Your task to perform on an android device: Open eBay Image 0: 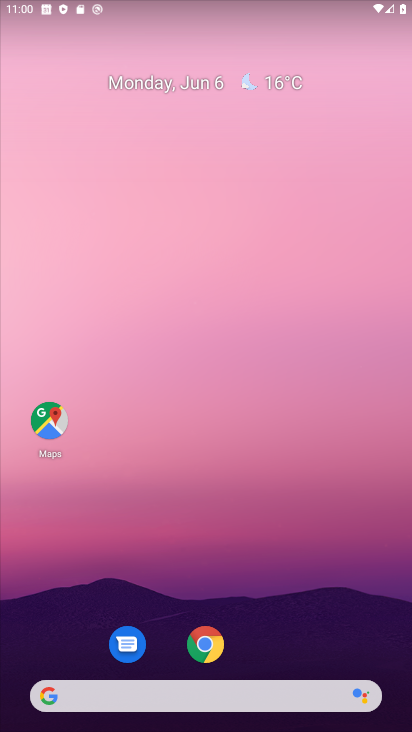
Step 0: click (217, 650)
Your task to perform on an android device: Open eBay Image 1: 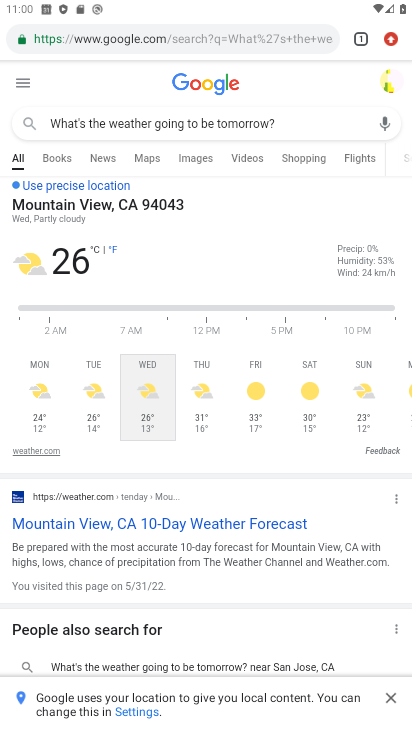
Step 1: click (359, 43)
Your task to perform on an android device: Open eBay Image 2: 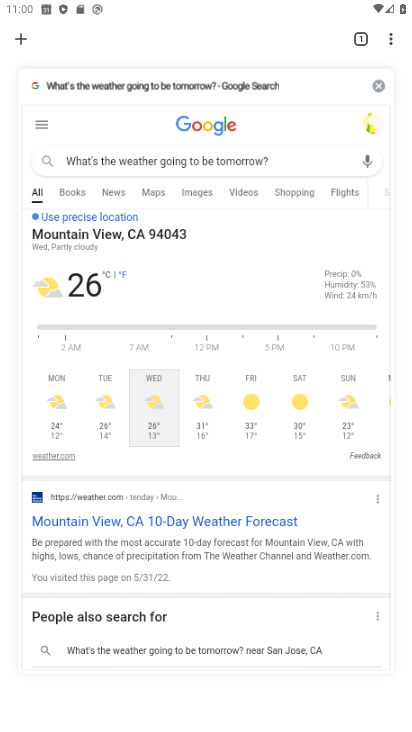
Step 2: click (22, 35)
Your task to perform on an android device: Open eBay Image 3: 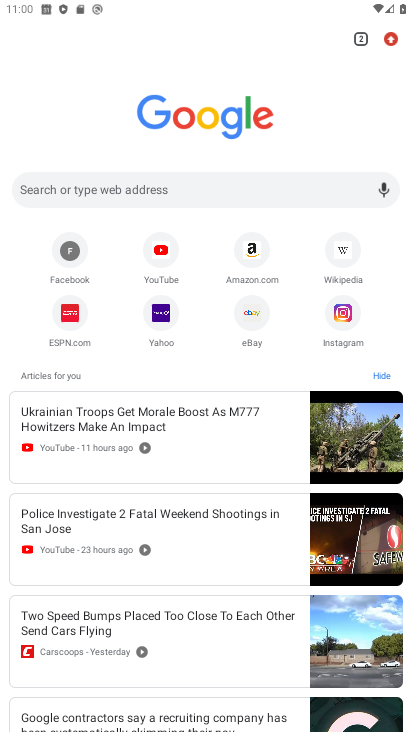
Step 3: click (252, 306)
Your task to perform on an android device: Open eBay Image 4: 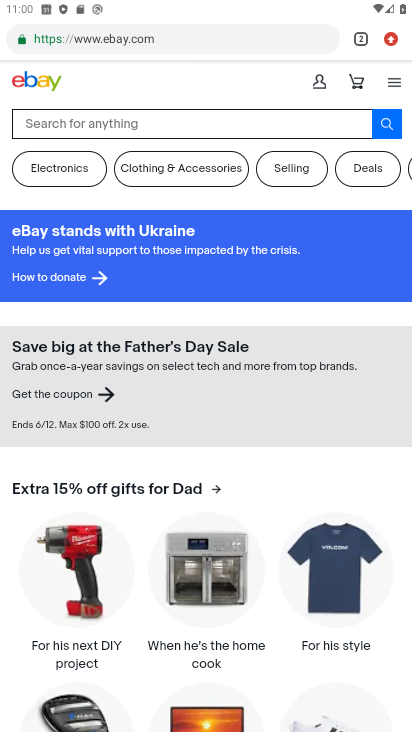
Step 4: task complete